Your task to perform on an android device: turn notification dots off Image 0: 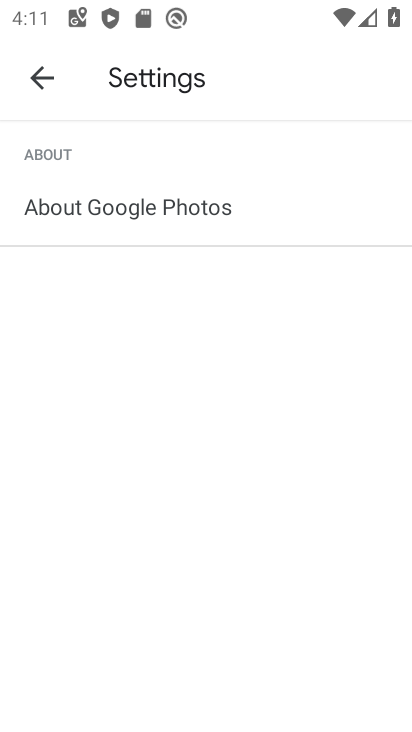
Step 0: press home button
Your task to perform on an android device: turn notification dots off Image 1: 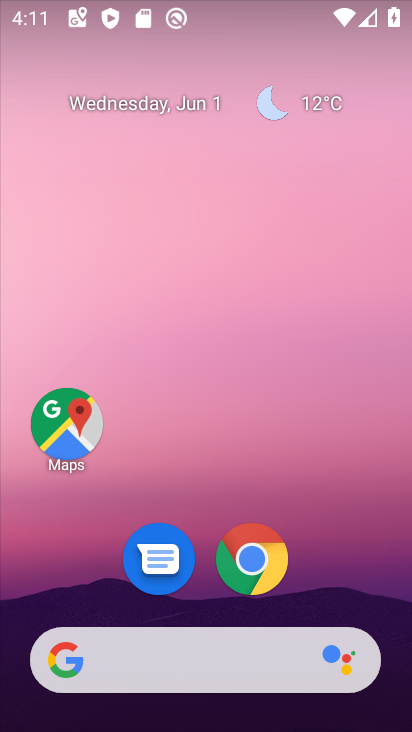
Step 1: drag from (309, 609) to (356, 0)
Your task to perform on an android device: turn notification dots off Image 2: 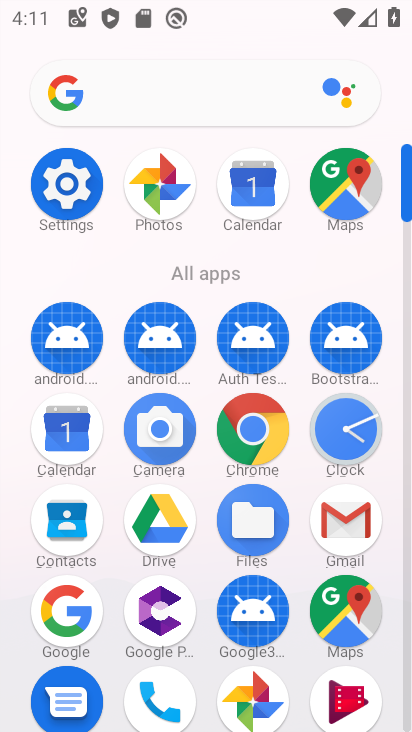
Step 2: click (61, 194)
Your task to perform on an android device: turn notification dots off Image 3: 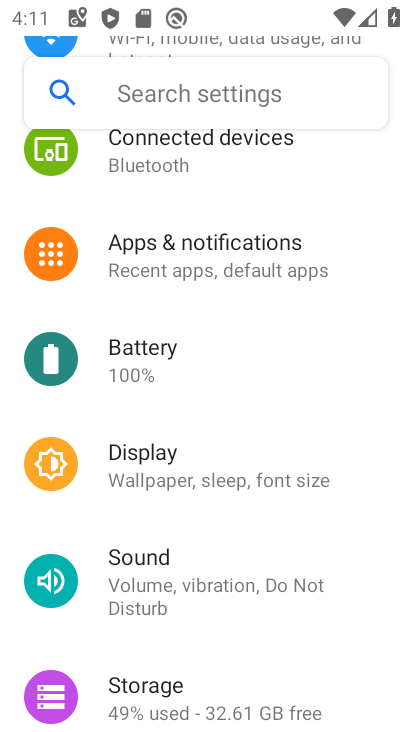
Step 3: click (166, 252)
Your task to perform on an android device: turn notification dots off Image 4: 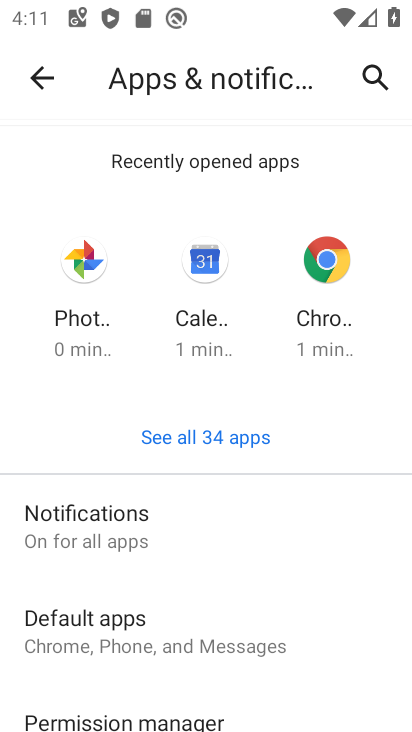
Step 4: click (80, 517)
Your task to perform on an android device: turn notification dots off Image 5: 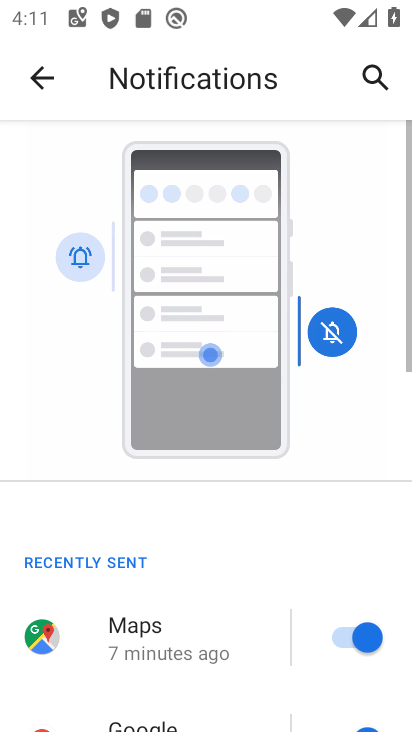
Step 5: drag from (167, 581) to (201, 86)
Your task to perform on an android device: turn notification dots off Image 6: 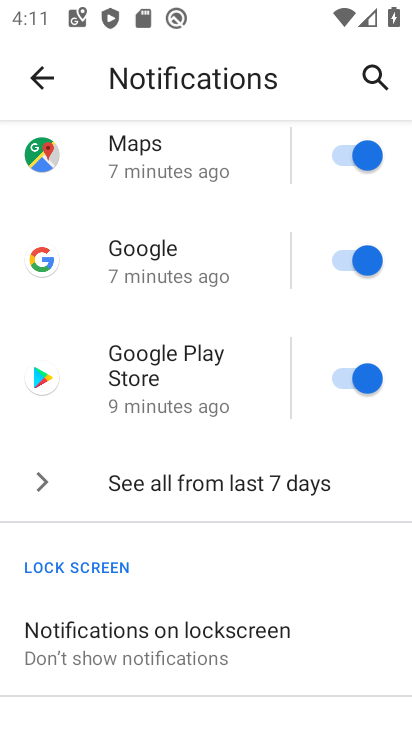
Step 6: drag from (231, 643) to (231, 151)
Your task to perform on an android device: turn notification dots off Image 7: 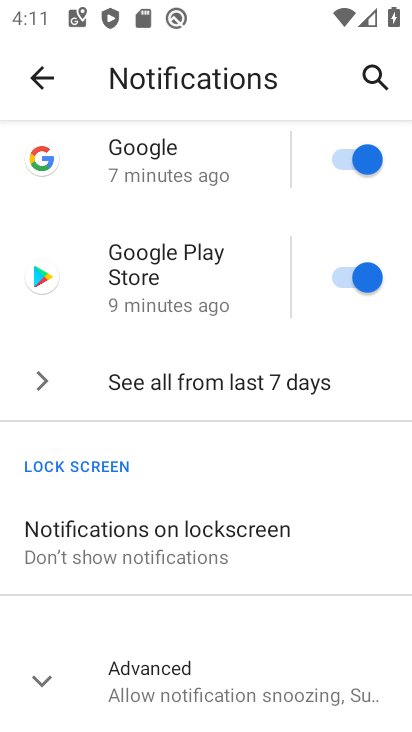
Step 7: click (167, 659)
Your task to perform on an android device: turn notification dots off Image 8: 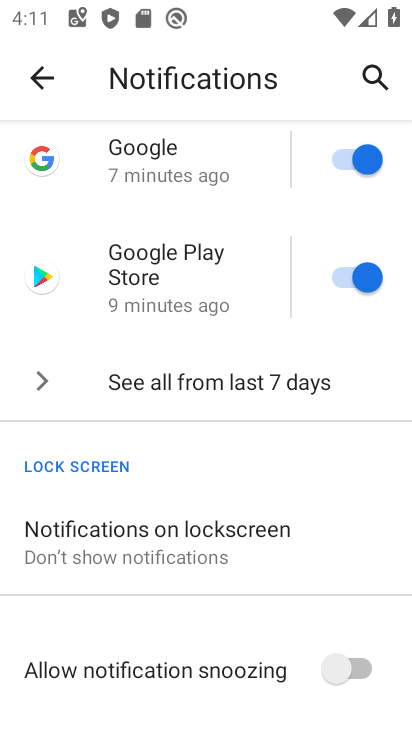
Step 8: drag from (190, 678) to (192, 235)
Your task to perform on an android device: turn notification dots off Image 9: 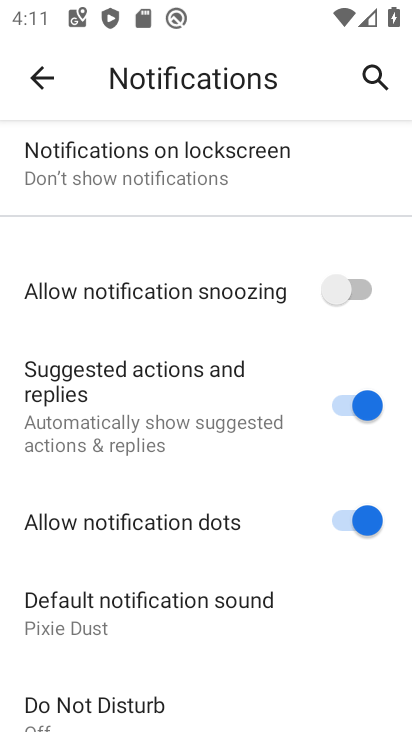
Step 9: click (328, 525)
Your task to perform on an android device: turn notification dots off Image 10: 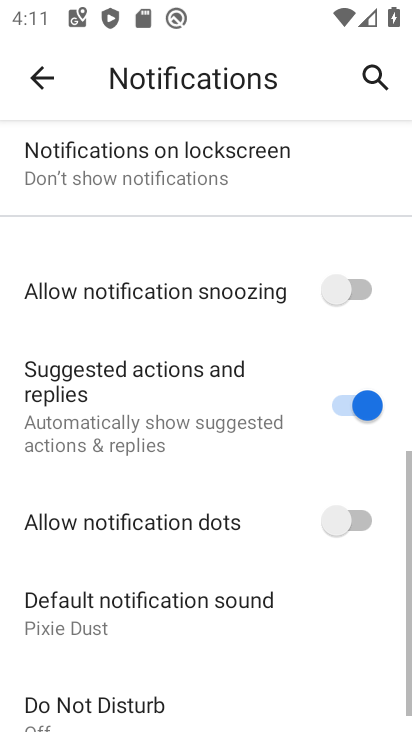
Step 10: task complete